Your task to perform on an android device: open app "Gmail" (install if not already installed) Image 0: 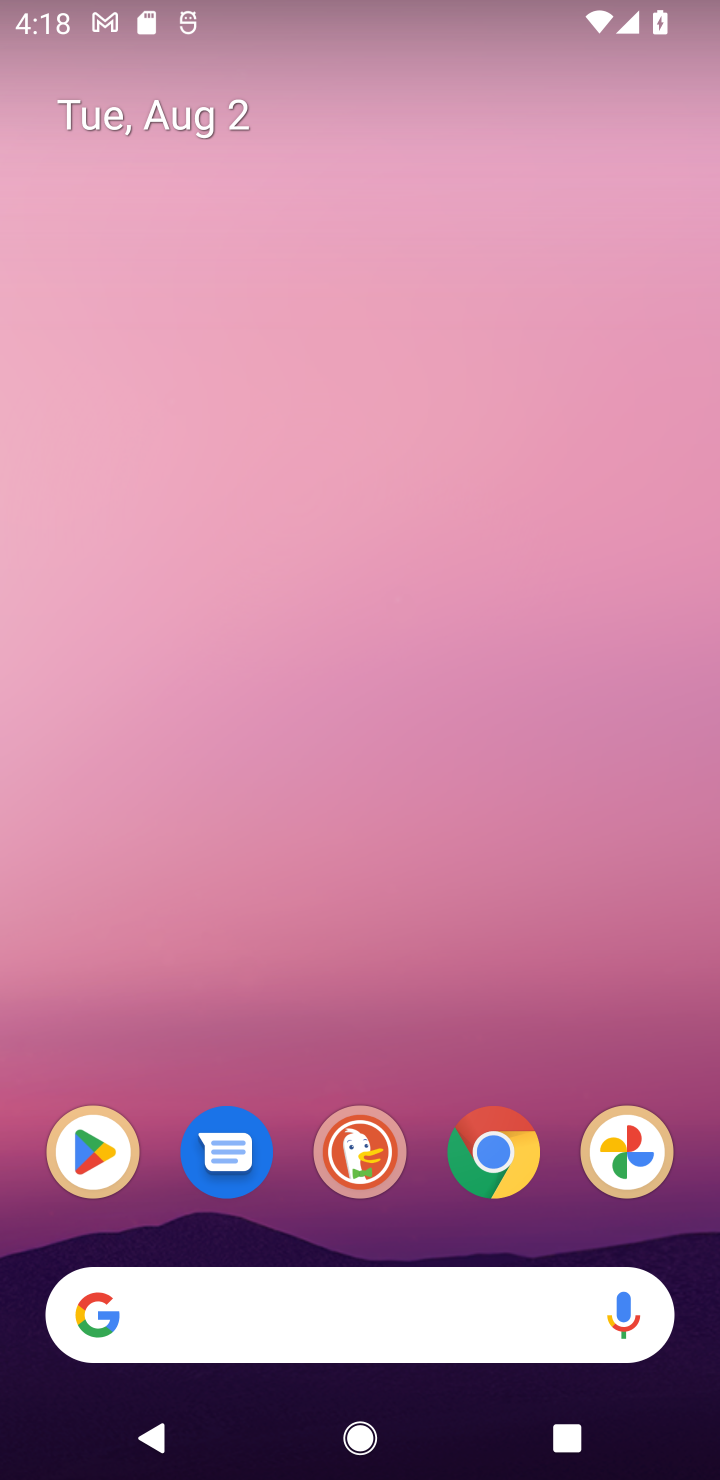
Step 0: drag from (325, 1207) to (308, 23)
Your task to perform on an android device: open app "Gmail" (install if not already installed) Image 1: 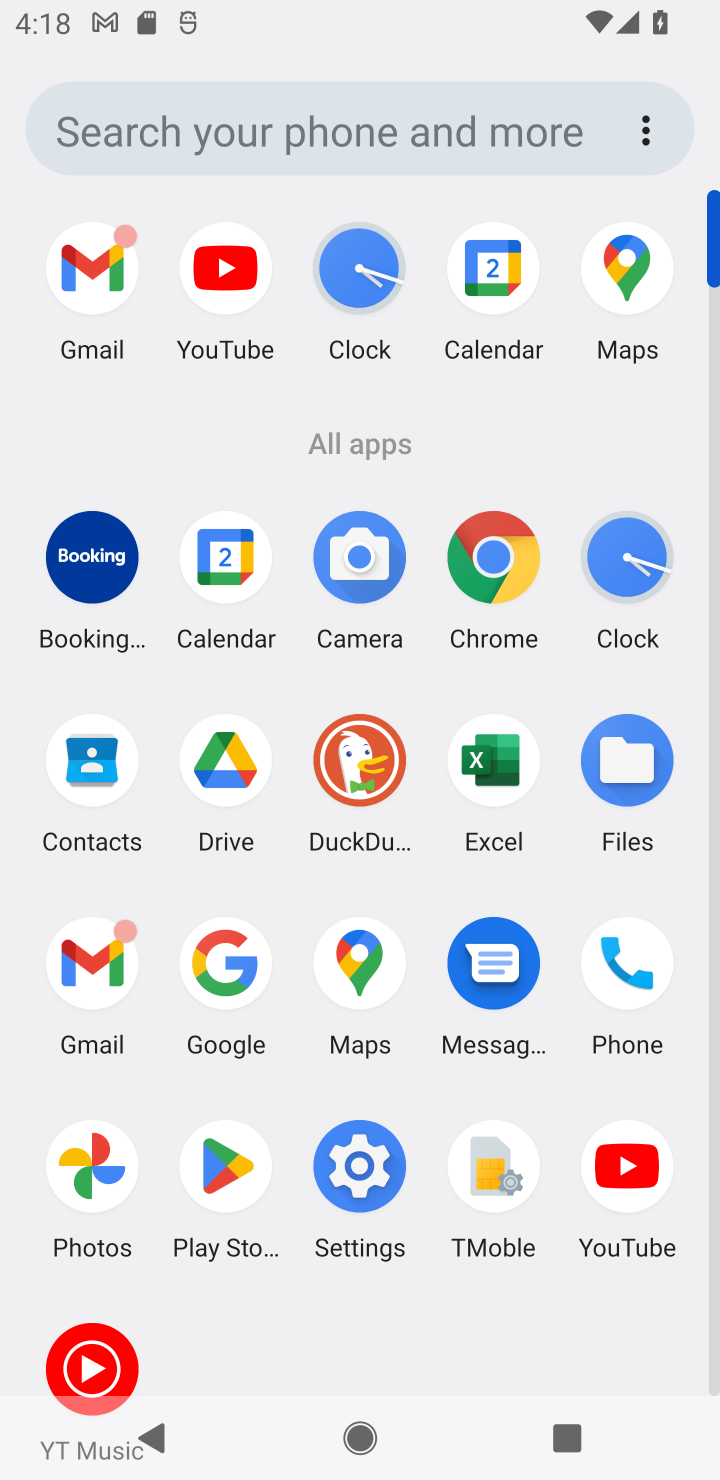
Step 1: click (103, 970)
Your task to perform on an android device: open app "Gmail" (install if not already installed) Image 2: 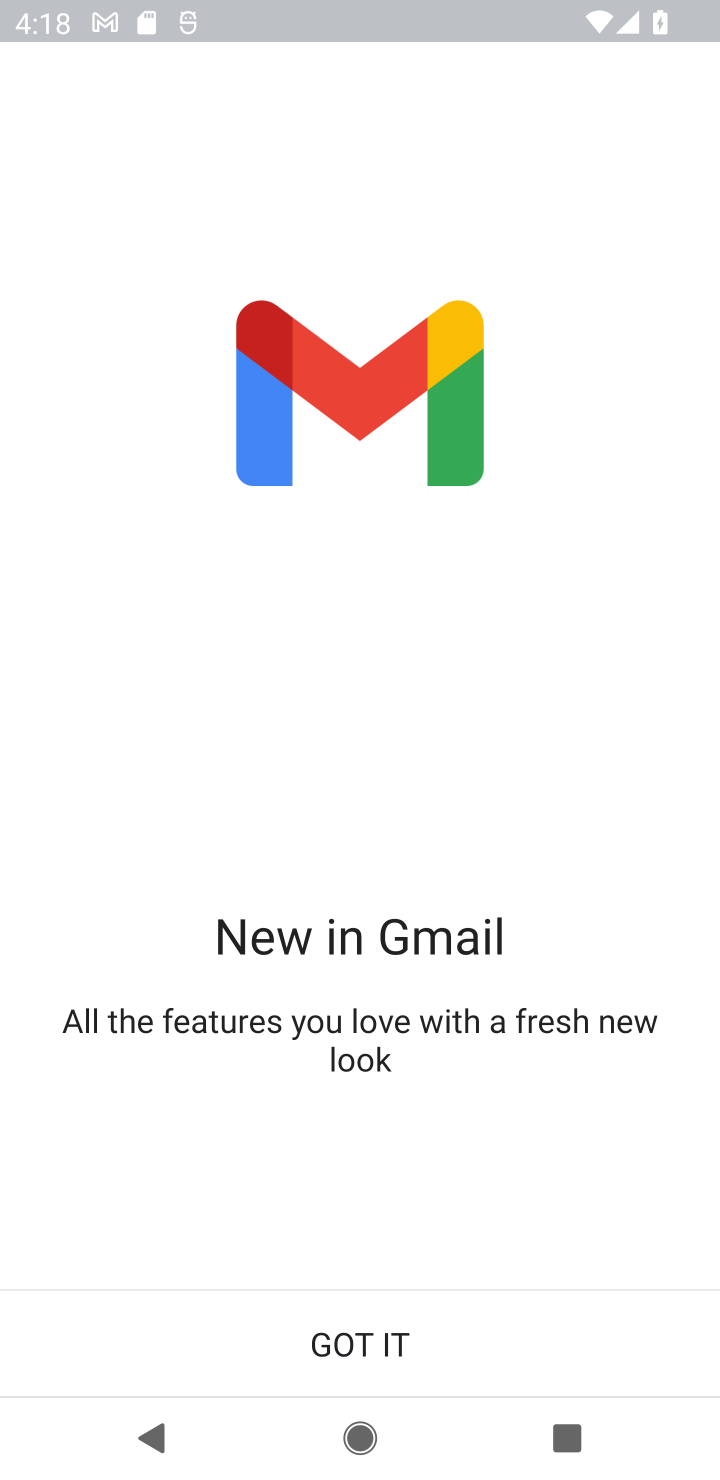
Step 2: click (396, 1333)
Your task to perform on an android device: open app "Gmail" (install if not already installed) Image 3: 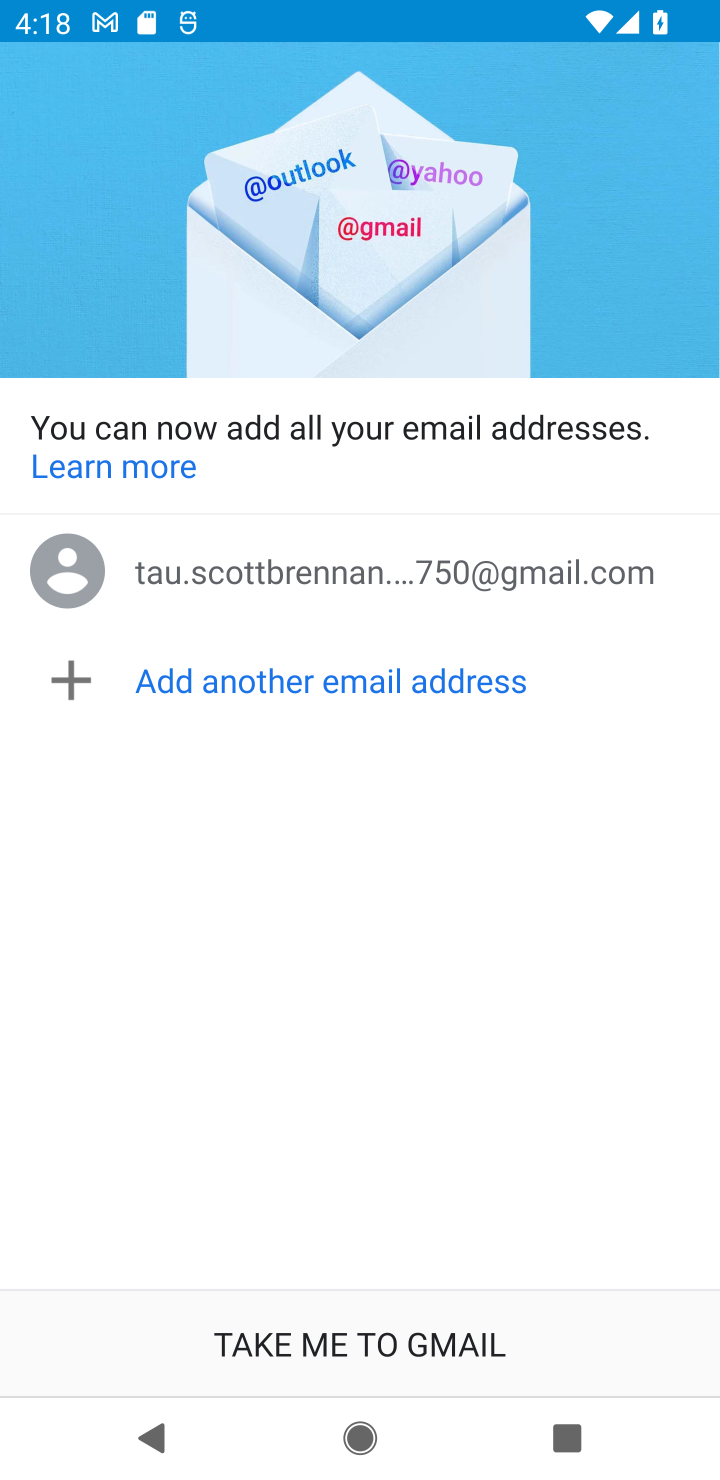
Step 3: click (396, 1327)
Your task to perform on an android device: open app "Gmail" (install if not already installed) Image 4: 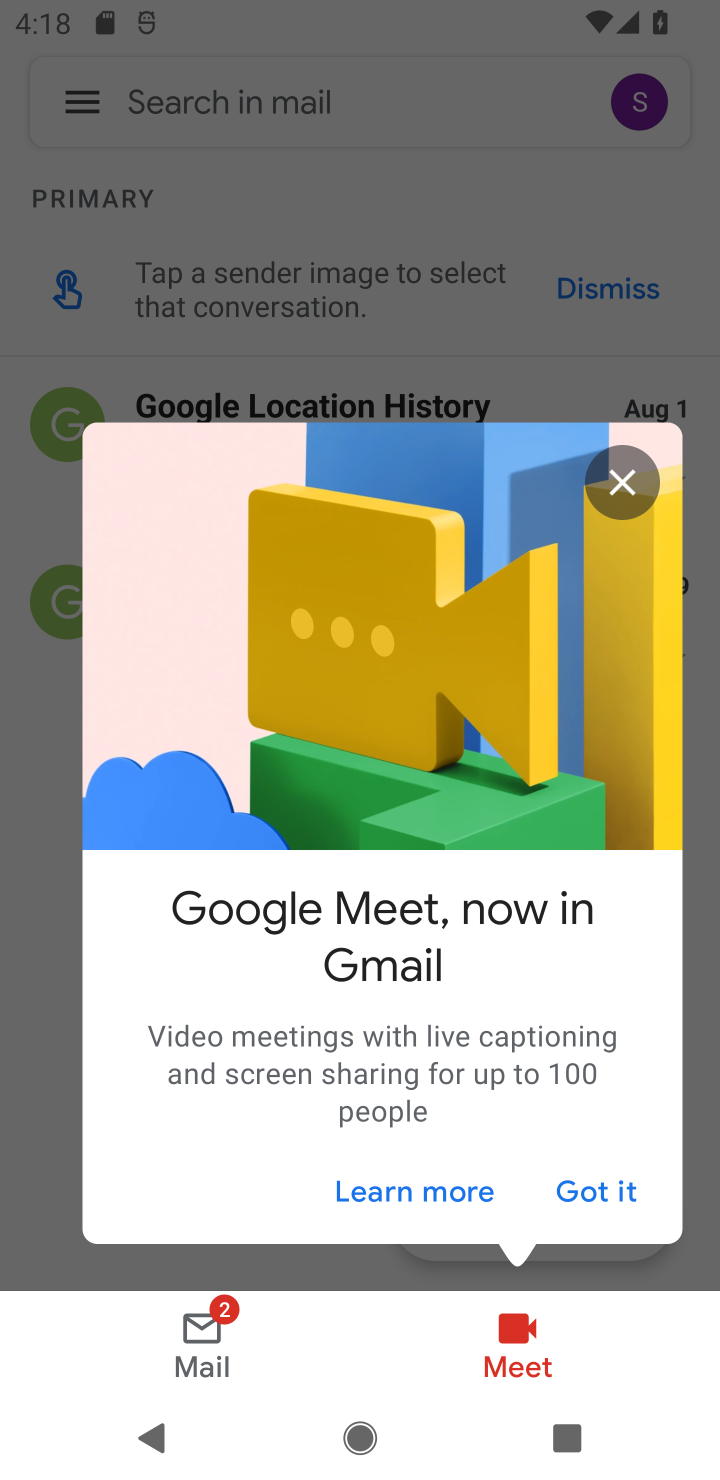
Step 4: click (556, 1193)
Your task to perform on an android device: open app "Gmail" (install if not already installed) Image 5: 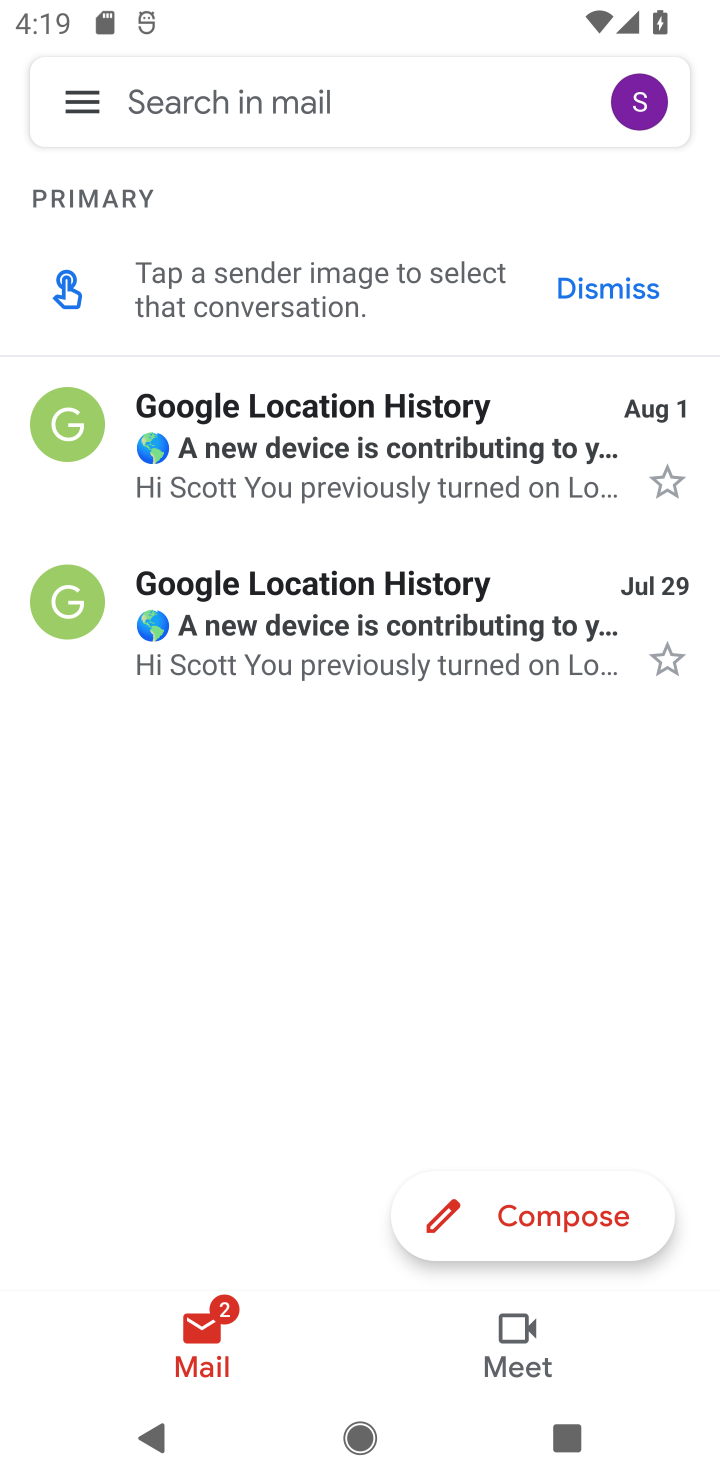
Step 5: task complete